Your task to perform on an android device: check data usage Image 0: 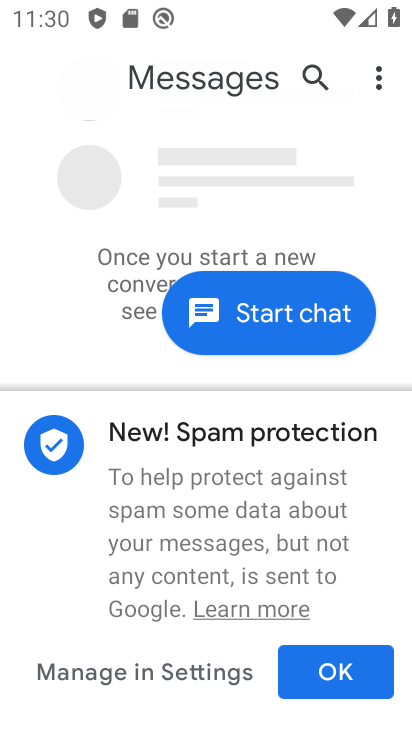
Step 0: press home button
Your task to perform on an android device: check data usage Image 1: 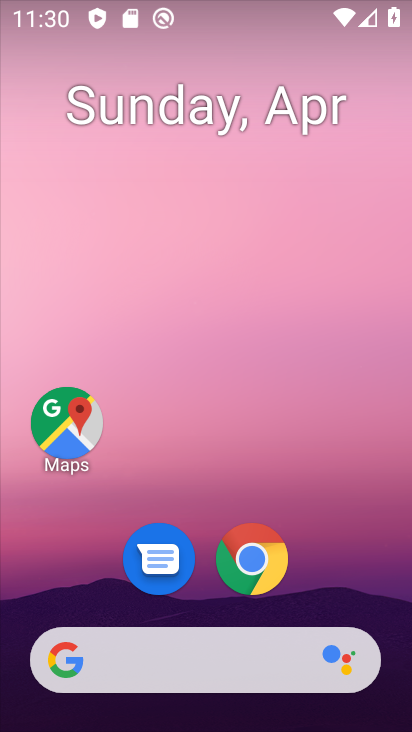
Step 1: drag from (323, 599) to (325, 222)
Your task to perform on an android device: check data usage Image 2: 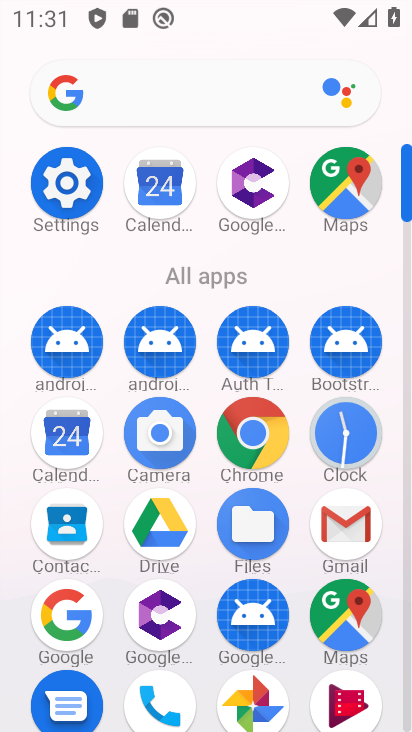
Step 2: click (56, 209)
Your task to perform on an android device: check data usage Image 3: 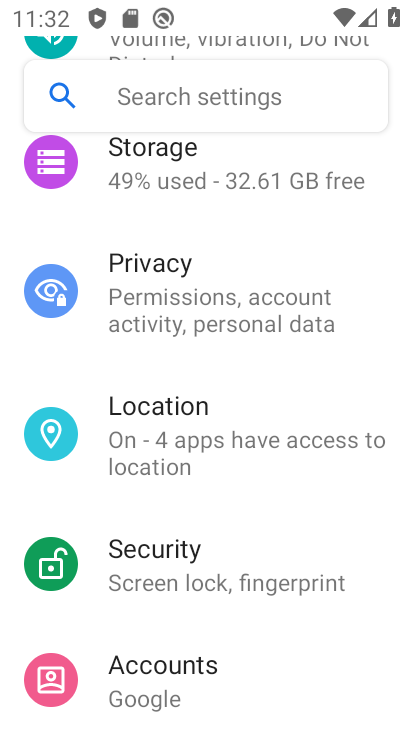
Step 3: drag from (160, 249) to (294, 721)
Your task to perform on an android device: check data usage Image 4: 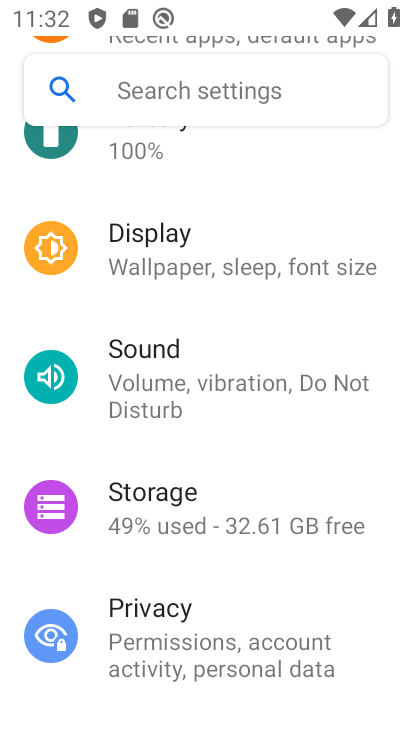
Step 4: drag from (228, 309) to (368, 727)
Your task to perform on an android device: check data usage Image 5: 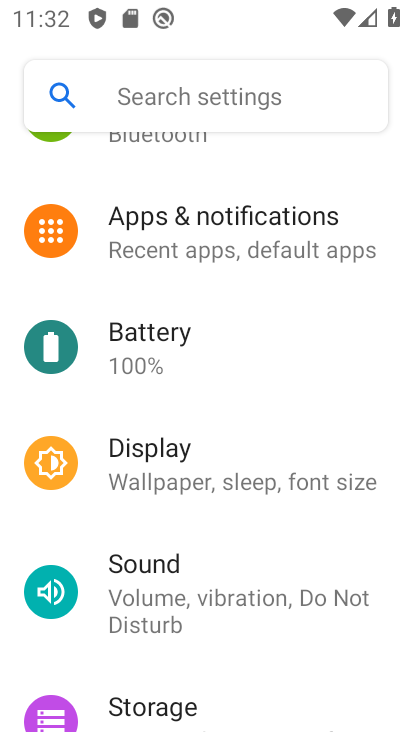
Step 5: drag from (203, 367) to (247, 574)
Your task to perform on an android device: check data usage Image 6: 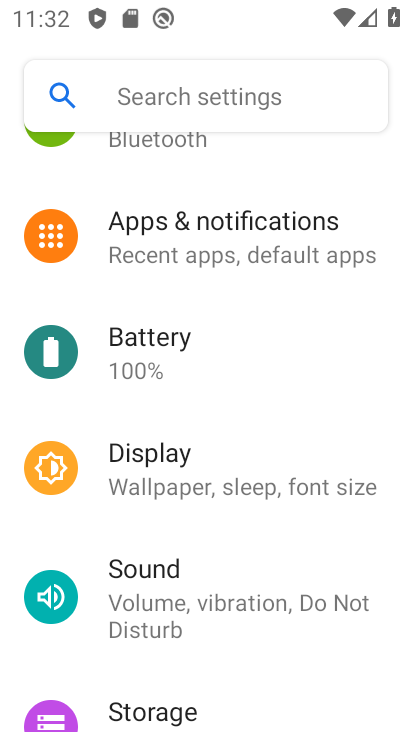
Step 6: drag from (227, 221) to (233, 652)
Your task to perform on an android device: check data usage Image 7: 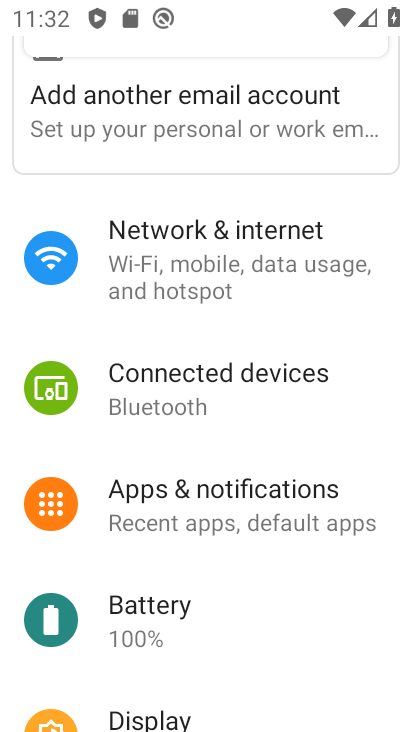
Step 7: click (193, 344)
Your task to perform on an android device: check data usage Image 8: 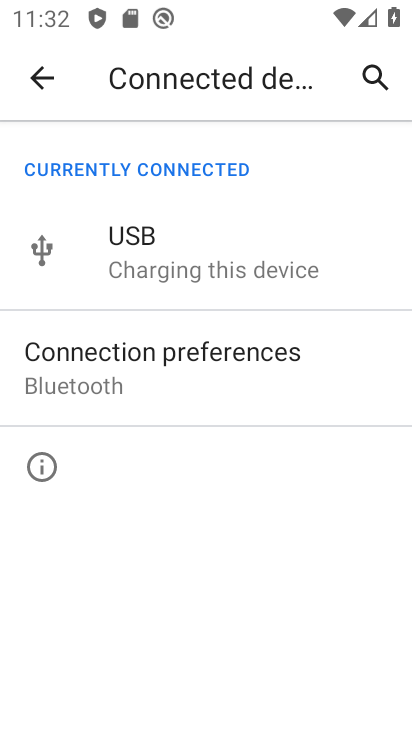
Step 8: click (41, 94)
Your task to perform on an android device: check data usage Image 9: 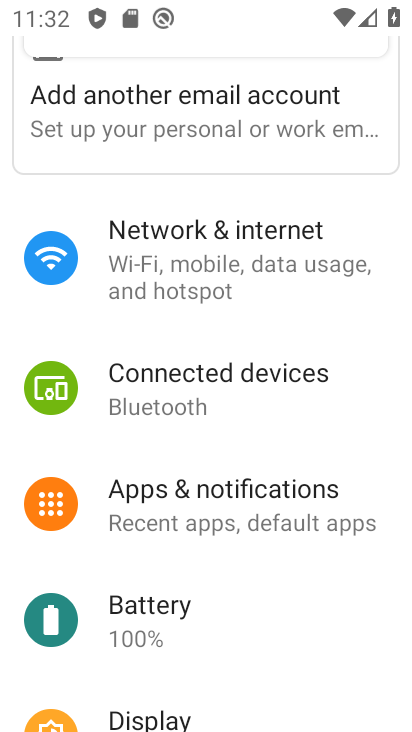
Step 9: click (164, 229)
Your task to perform on an android device: check data usage Image 10: 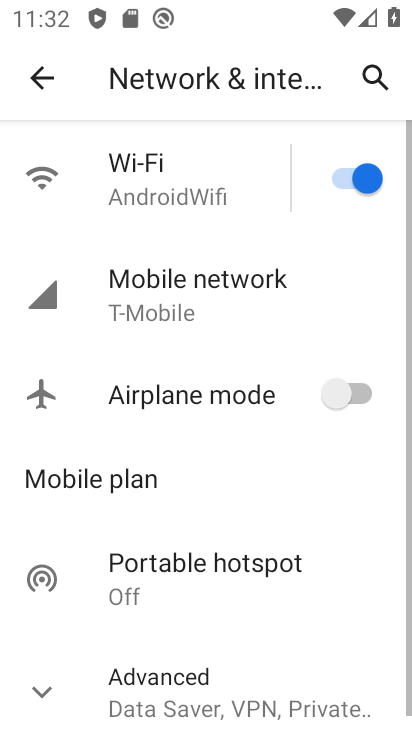
Step 10: click (177, 276)
Your task to perform on an android device: check data usage Image 11: 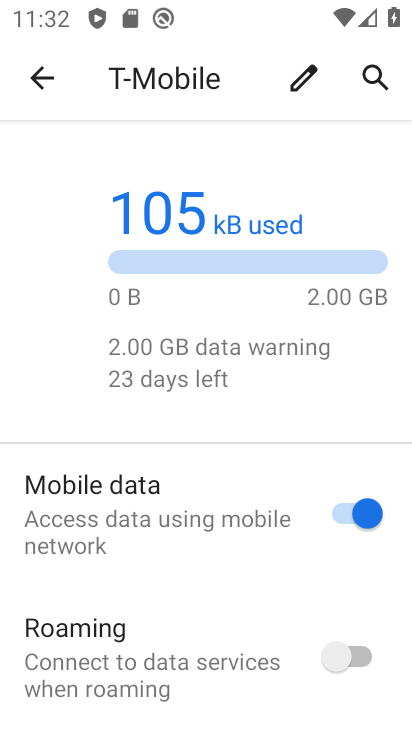
Step 11: task complete